Your task to perform on an android device: Open Wikipedia Image 0: 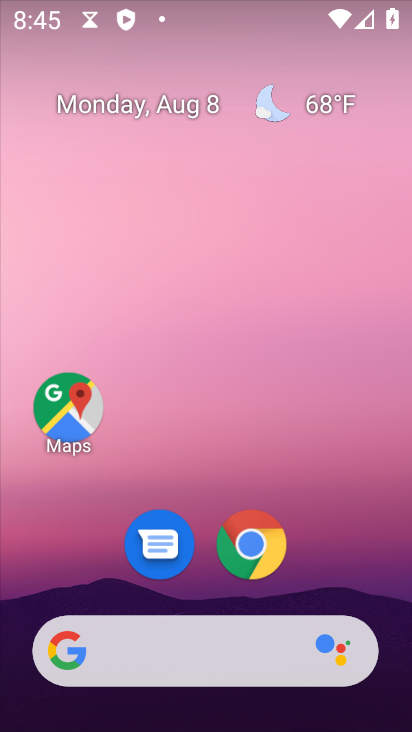
Step 0: press home button
Your task to perform on an android device: Open Wikipedia Image 1: 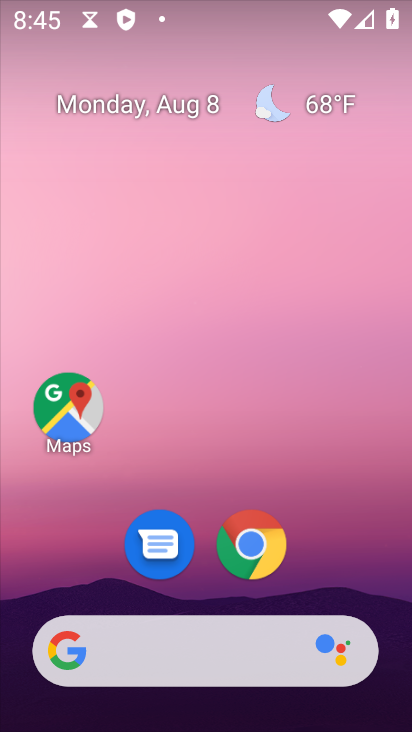
Step 1: drag from (314, 579) to (348, 28)
Your task to perform on an android device: Open Wikipedia Image 2: 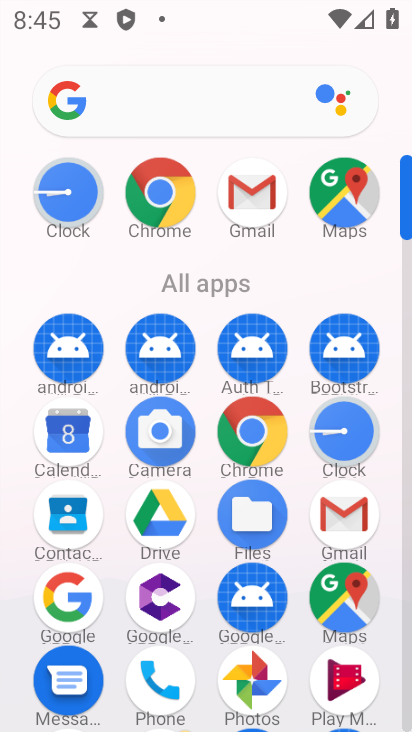
Step 2: click (247, 423)
Your task to perform on an android device: Open Wikipedia Image 3: 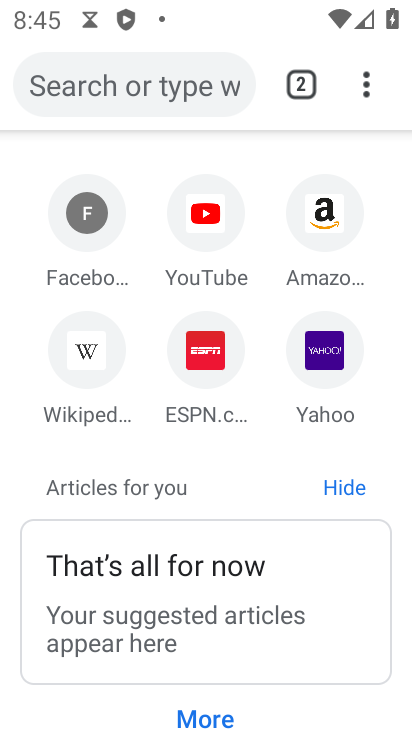
Step 3: click (82, 347)
Your task to perform on an android device: Open Wikipedia Image 4: 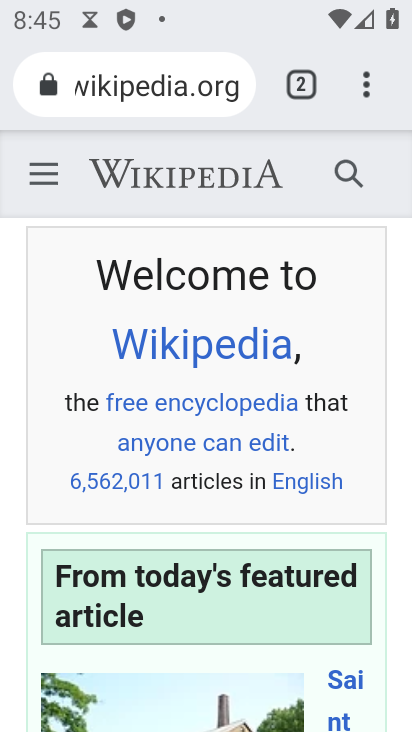
Step 4: task complete